Your task to perform on an android device: What's the weather going to be this weekend? Image 0: 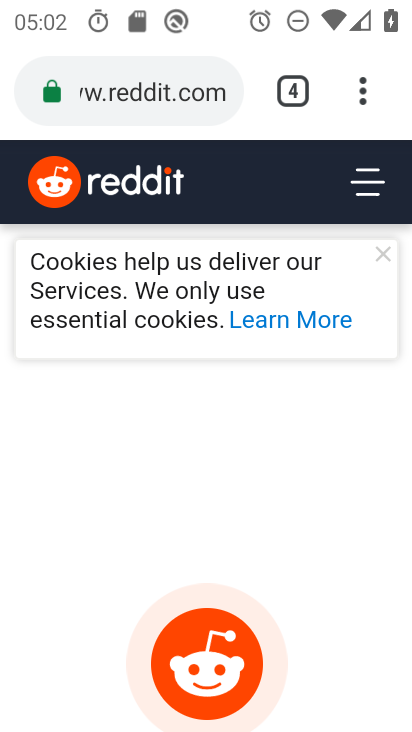
Step 0: press back button
Your task to perform on an android device: What's the weather going to be this weekend? Image 1: 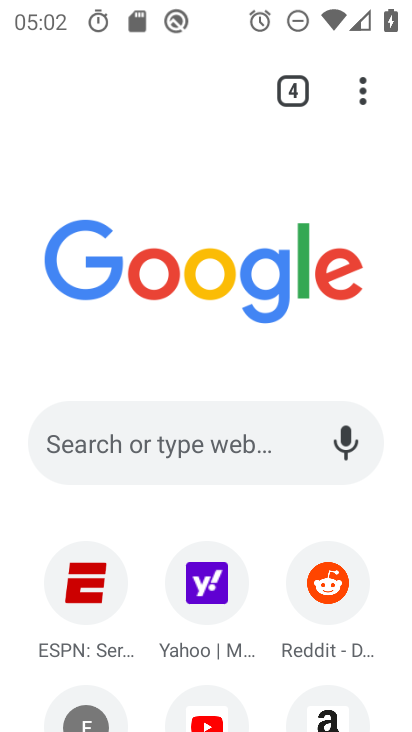
Step 1: press back button
Your task to perform on an android device: What's the weather going to be this weekend? Image 2: 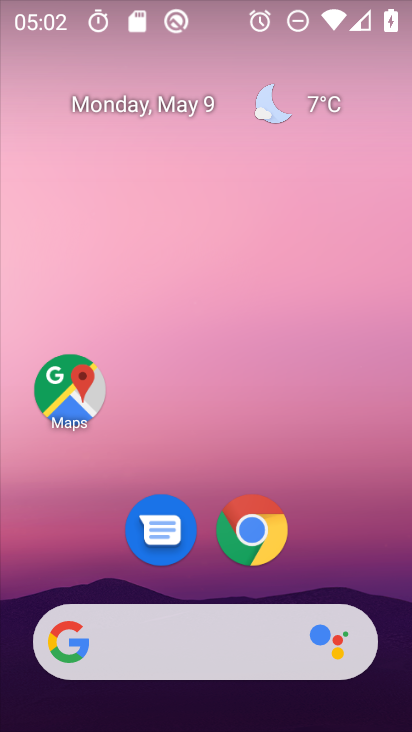
Step 2: click (282, 112)
Your task to perform on an android device: What's the weather going to be this weekend? Image 3: 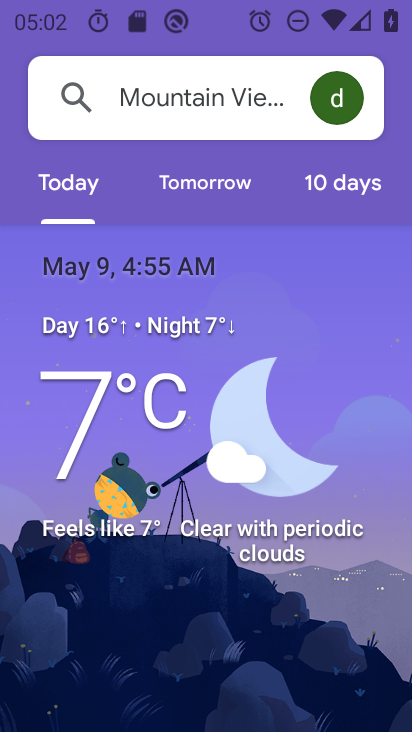
Step 3: click (338, 189)
Your task to perform on an android device: What's the weather going to be this weekend? Image 4: 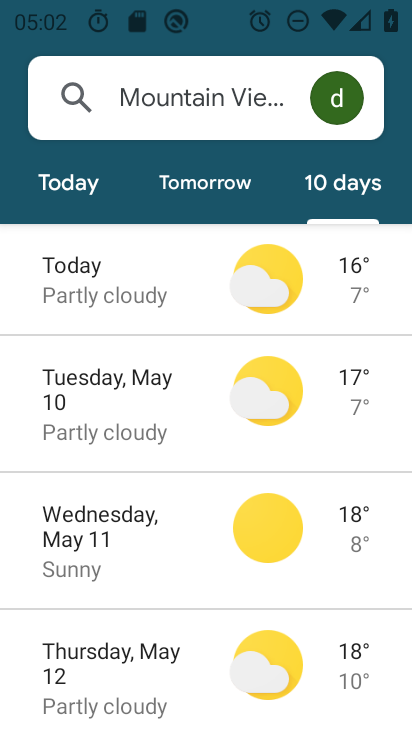
Step 4: task complete